Your task to perform on an android device: turn off smart reply in the gmail app Image 0: 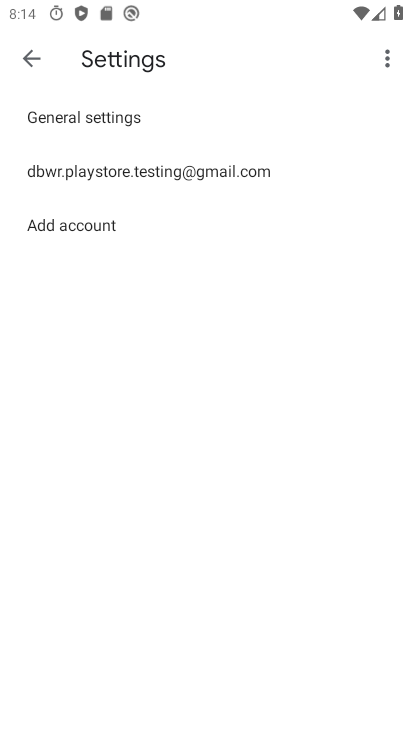
Step 0: press back button
Your task to perform on an android device: turn off smart reply in the gmail app Image 1: 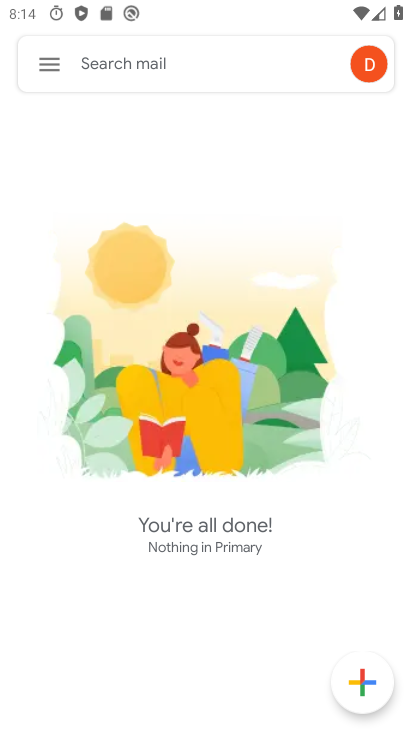
Step 1: click (62, 60)
Your task to perform on an android device: turn off smart reply in the gmail app Image 2: 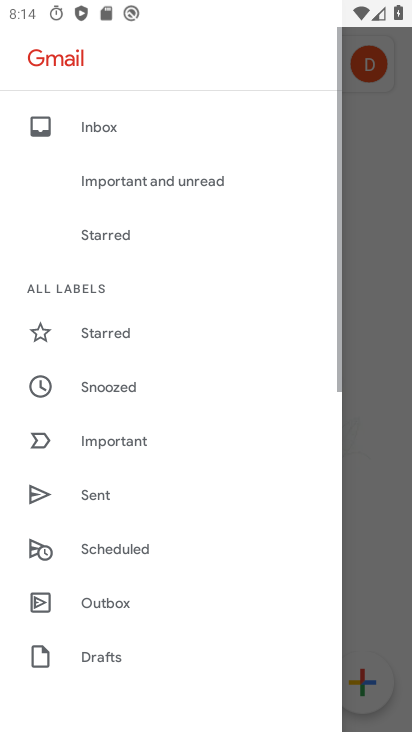
Step 2: drag from (161, 533) to (207, 152)
Your task to perform on an android device: turn off smart reply in the gmail app Image 3: 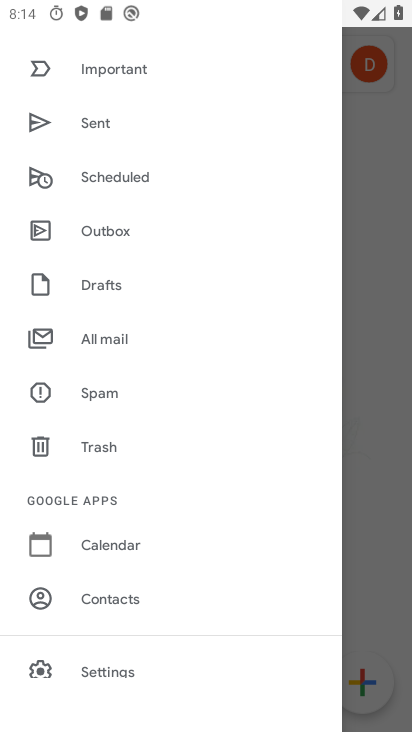
Step 3: drag from (186, 585) to (230, 138)
Your task to perform on an android device: turn off smart reply in the gmail app Image 4: 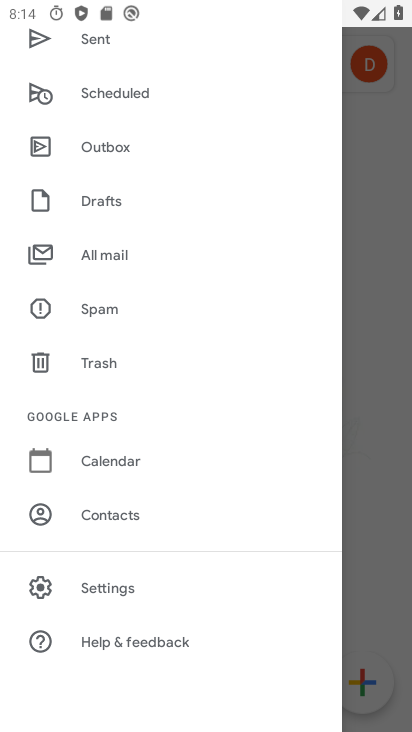
Step 4: click (122, 586)
Your task to perform on an android device: turn off smart reply in the gmail app Image 5: 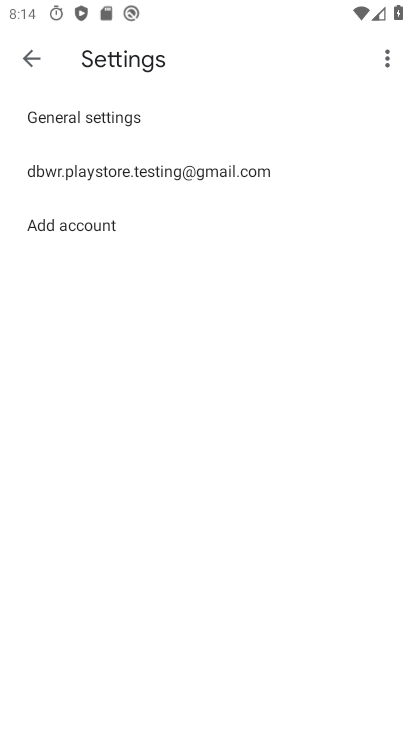
Step 5: click (146, 167)
Your task to perform on an android device: turn off smart reply in the gmail app Image 6: 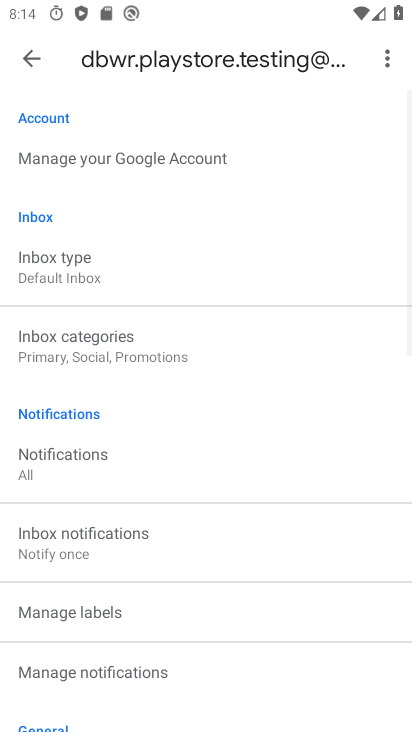
Step 6: drag from (195, 591) to (257, 173)
Your task to perform on an android device: turn off smart reply in the gmail app Image 7: 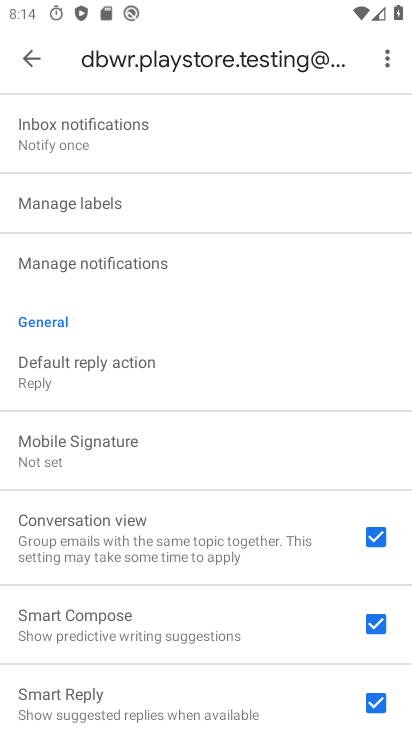
Step 7: drag from (228, 579) to (241, 288)
Your task to perform on an android device: turn off smart reply in the gmail app Image 8: 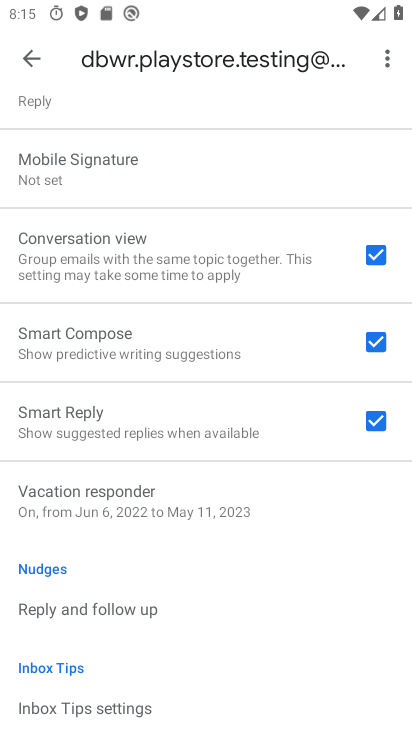
Step 8: click (375, 419)
Your task to perform on an android device: turn off smart reply in the gmail app Image 9: 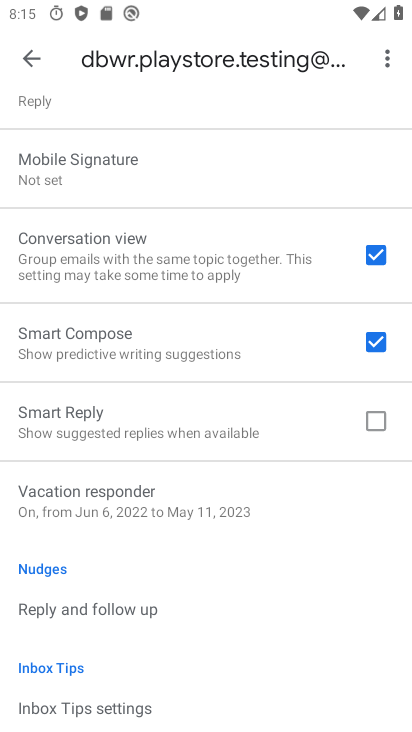
Step 9: task complete